Your task to perform on an android device: add a label to a message in the gmail app Image 0: 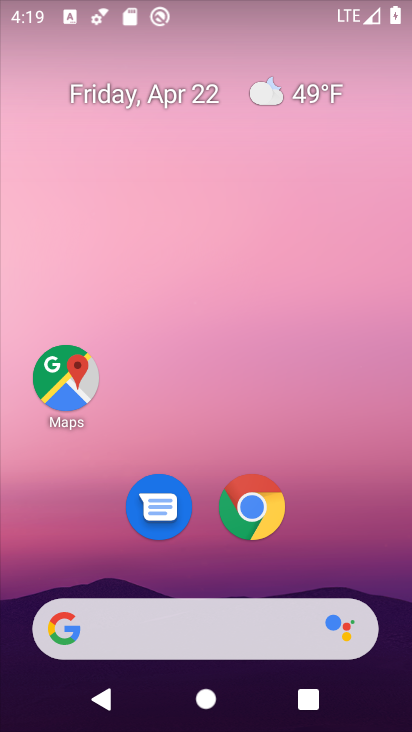
Step 0: drag from (391, 620) to (319, 130)
Your task to perform on an android device: add a label to a message in the gmail app Image 1: 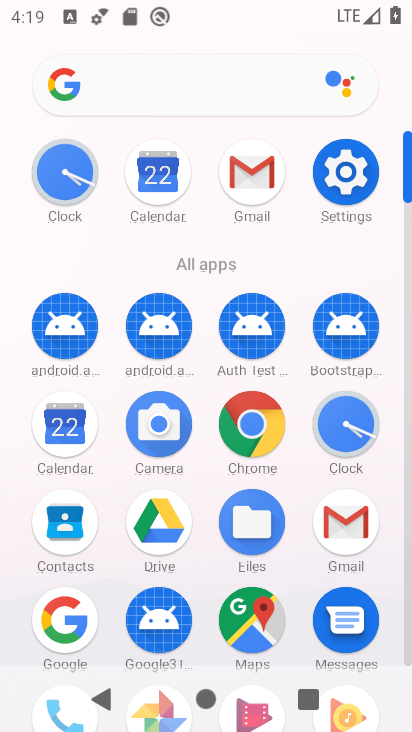
Step 1: click (405, 649)
Your task to perform on an android device: add a label to a message in the gmail app Image 2: 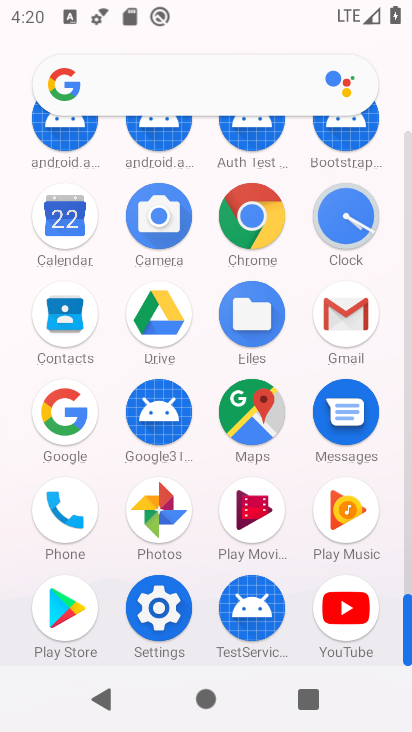
Step 2: click (347, 312)
Your task to perform on an android device: add a label to a message in the gmail app Image 3: 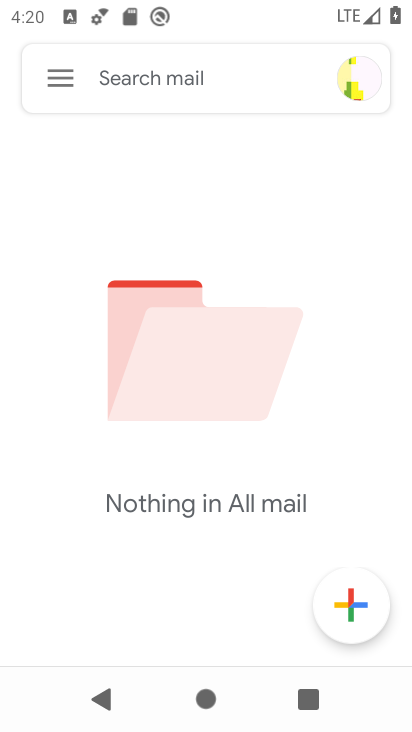
Step 3: click (58, 74)
Your task to perform on an android device: add a label to a message in the gmail app Image 4: 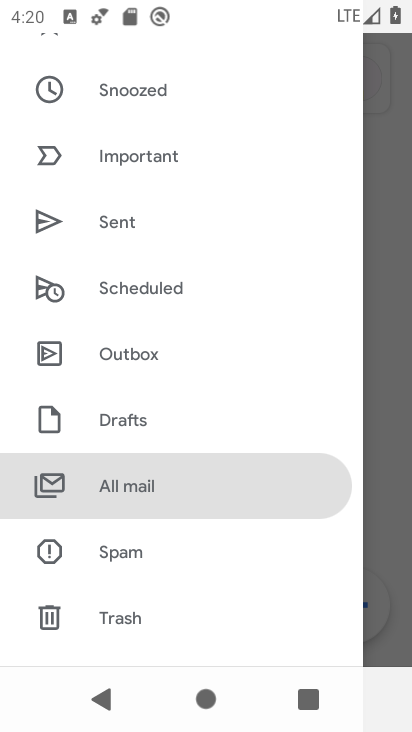
Step 4: click (140, 481)
Your task to perform on an android device: add a label to a message in the gmail app Image 5: 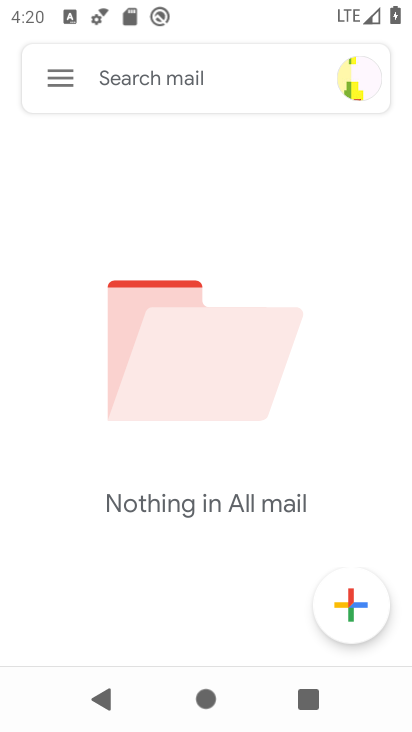
Step 5: task complete